Your task to perform on an android device: Search for Mexican restaurants on Maps Image 0: 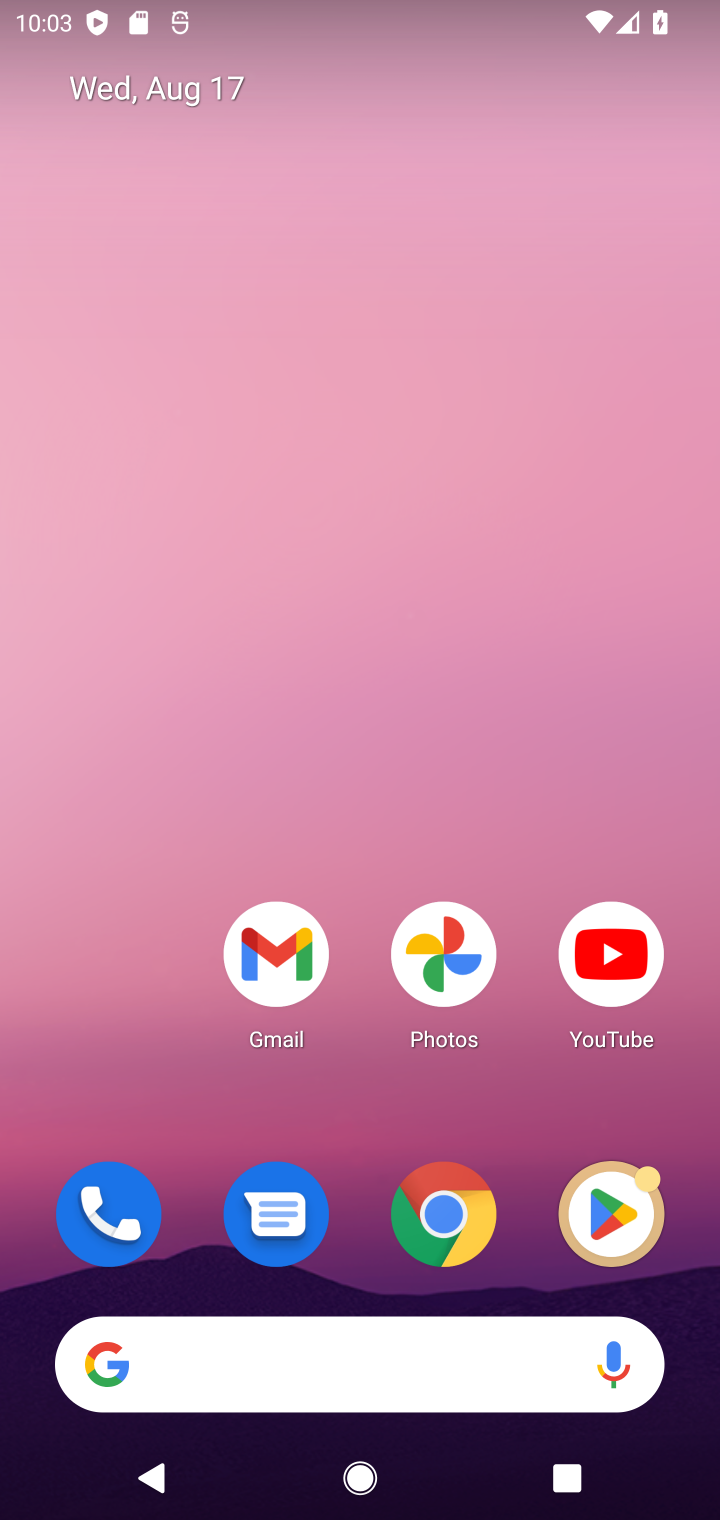
Step 0: drag from (331, 1376) to (475, 152)
Your task to perform on an android device: Search for Mexican restaurants on Maps Image 1: 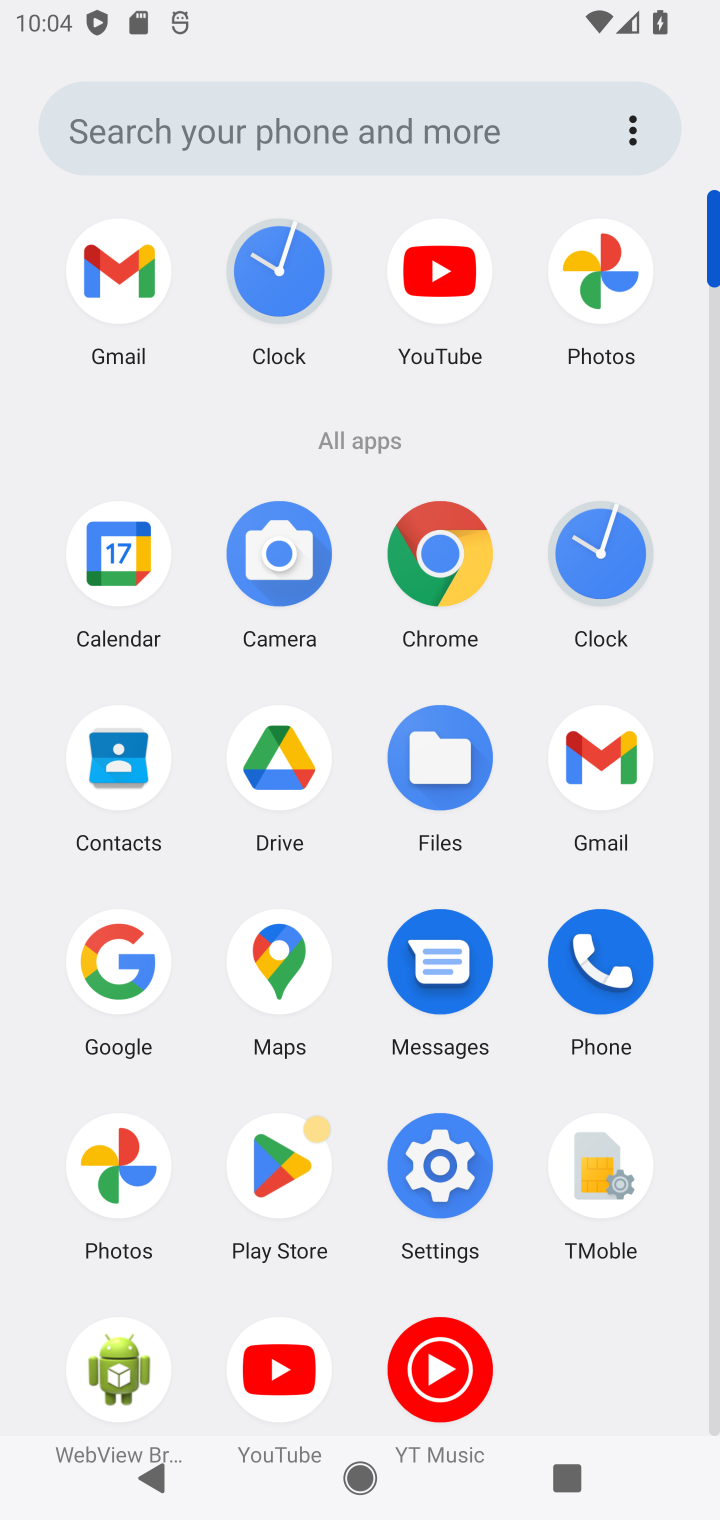
Step 1: click (287, 951)
Your task to perform on an android device: Search for Mexican restaurants on Maps Image 2: 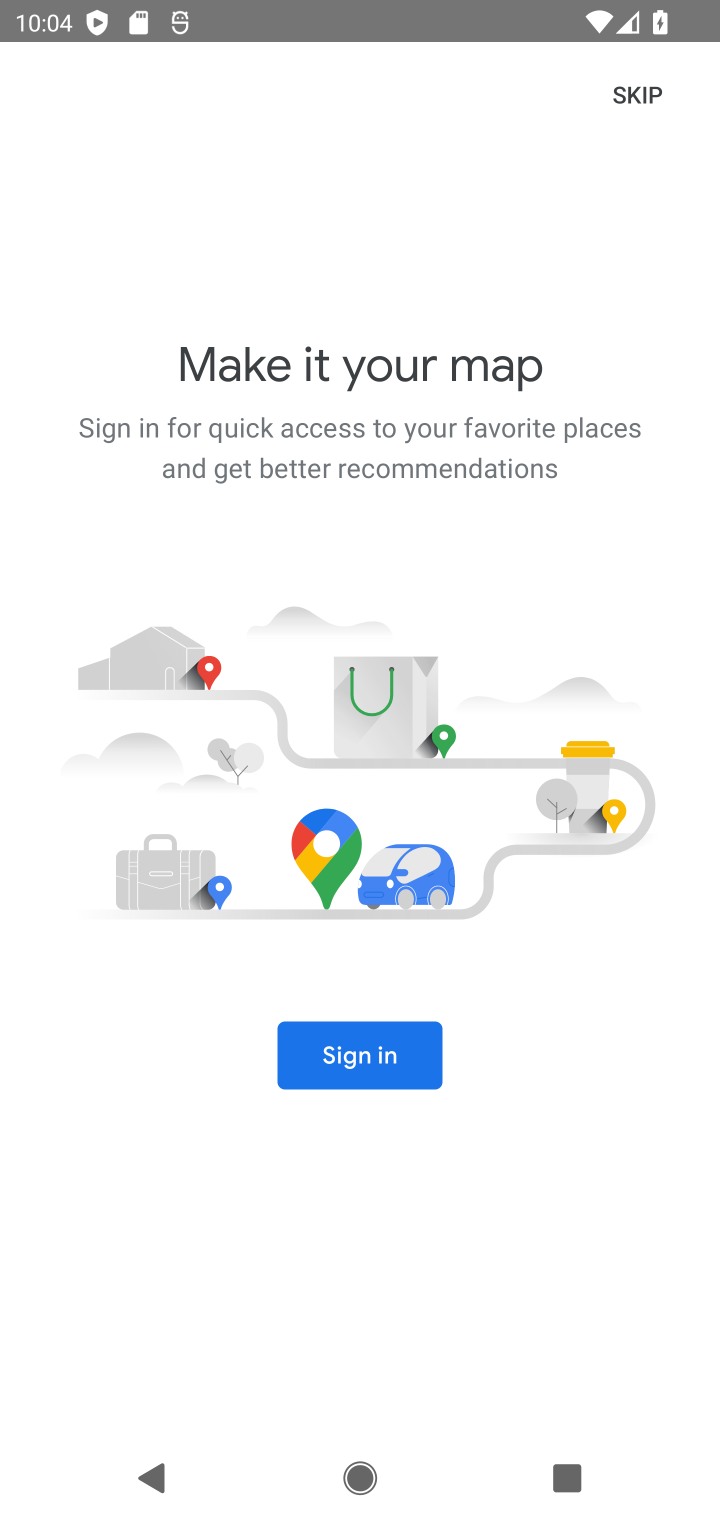
Step 2: click (638, 87)
Your task to perform on an android device: Search for Mexican restaurants on Maps Image 3: 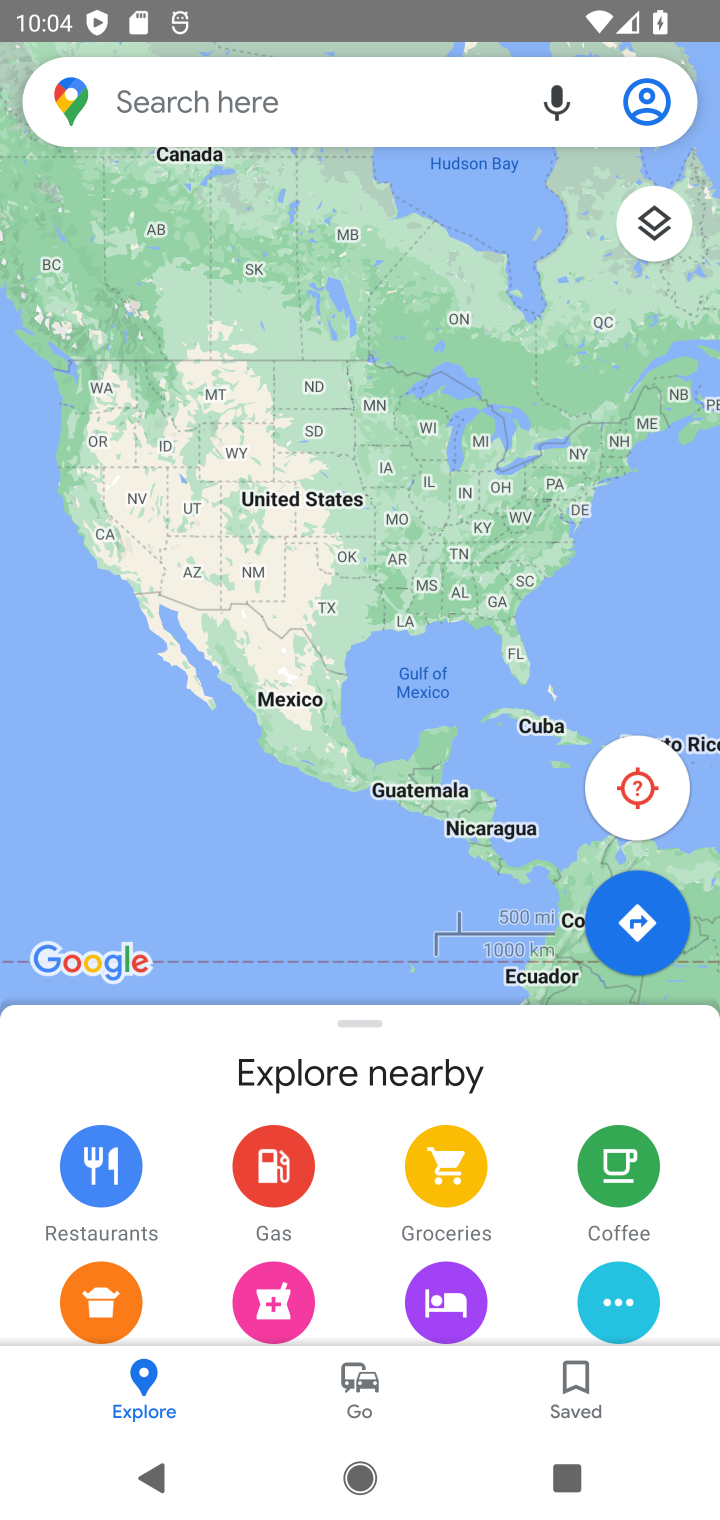
Step 3: click (359, 111)
Your task to perform on an android device: Search for Mexican restaurants on Maps Image 4: 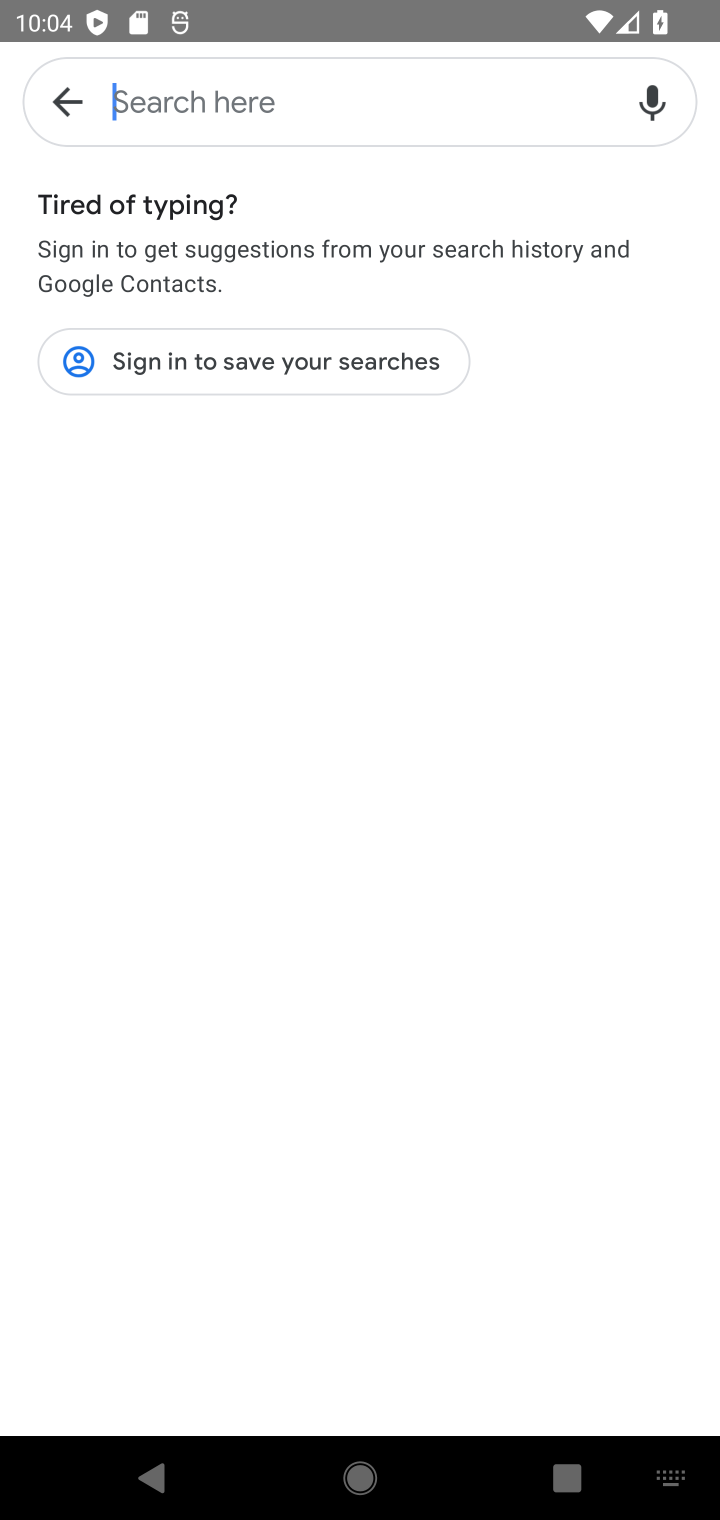
Step 4: type "Mexican restaurants"
Your task to perform on an android device: Search for Mexican restaurants on Maps Image 5: 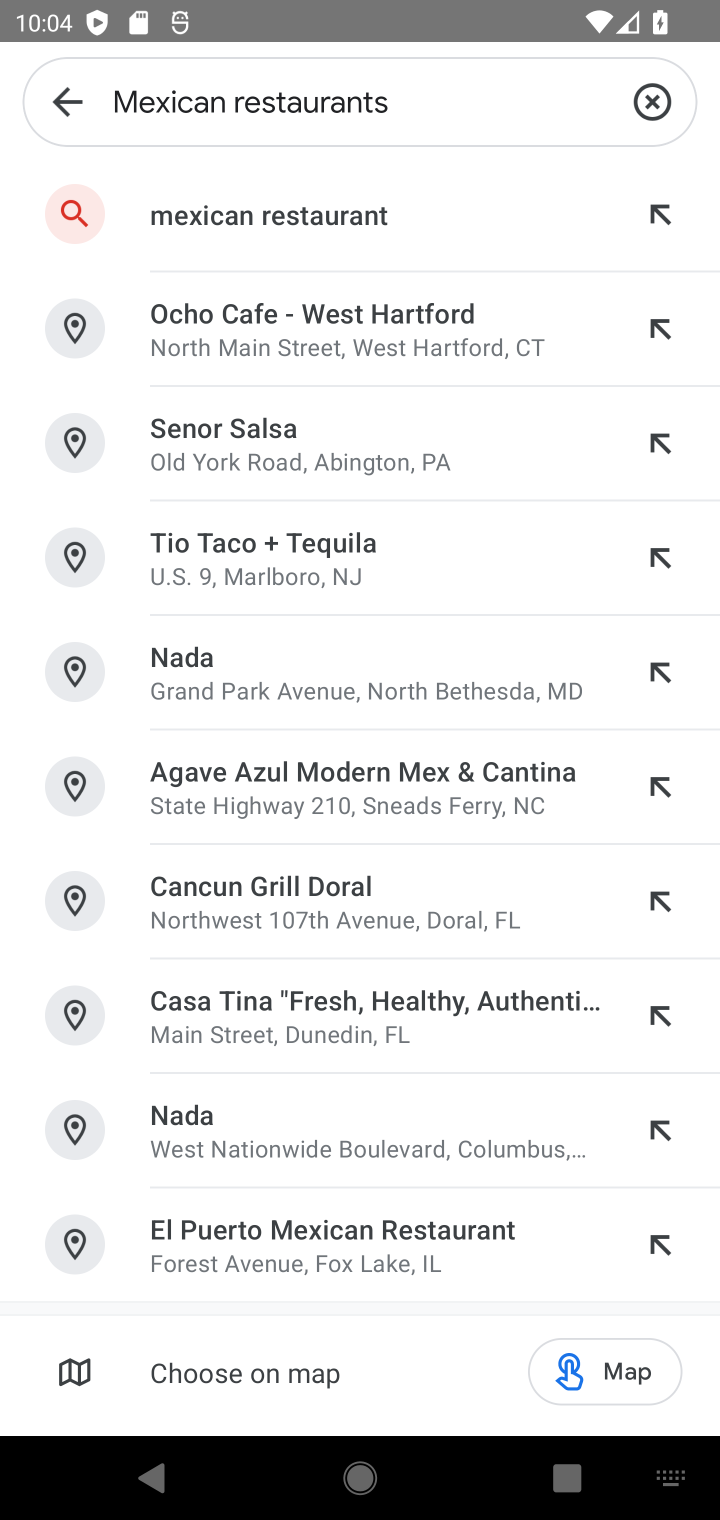
Step 5: click (309, 246)
Your task to perform on an android device: Search for Mexican restaurants on Maps Image 6: 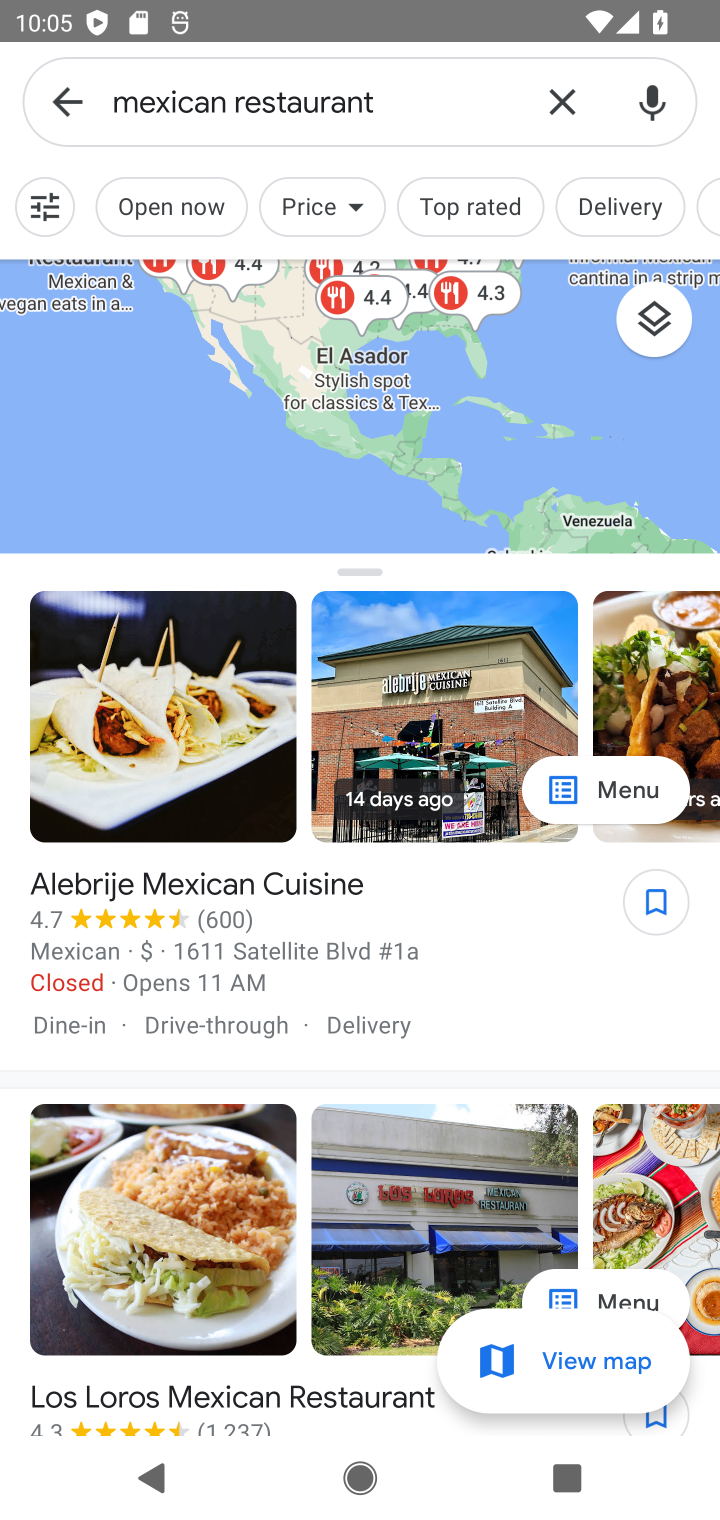
Step 6: task complete